Your task to perform on an android device: turn off picture-in-picture Image 0: 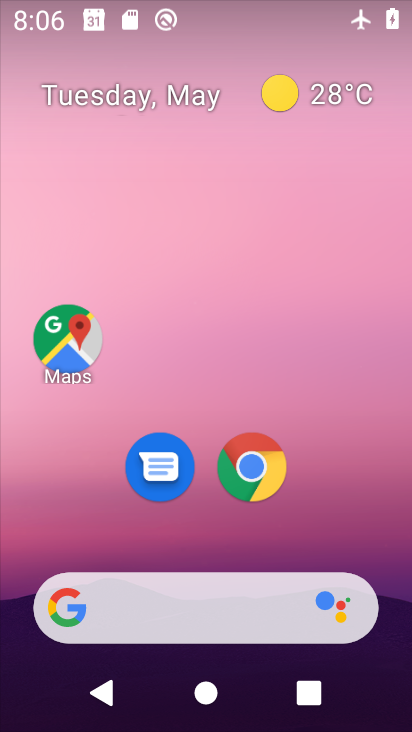
Step 0: click (243, 454)
Your task to perform on an android device: turn off picture-in-picture Image 1: 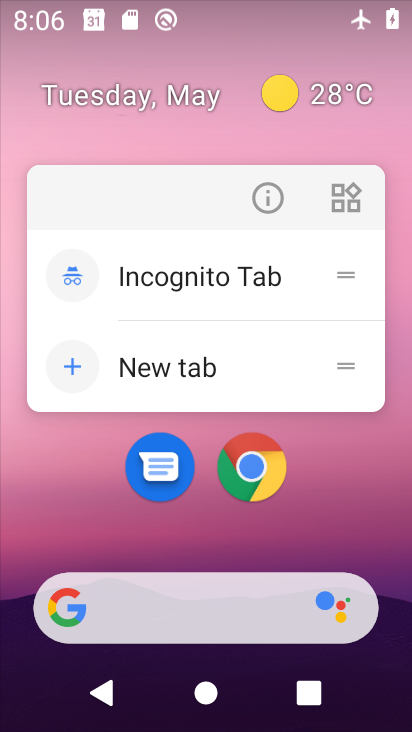
Step 1: click (256, 190)
Your task to perform on an android device: turn off picture-in-picture Image 2: 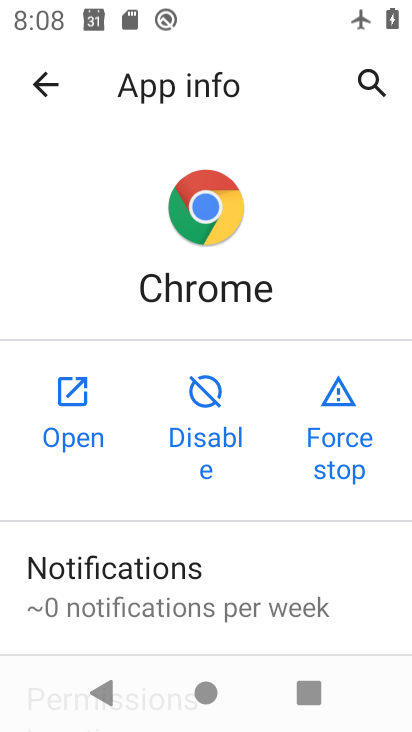
Step 2: drag from (167, 590) to (92, 148)
Your task to perform on an android device: turn off picture-in-picture Image 3: 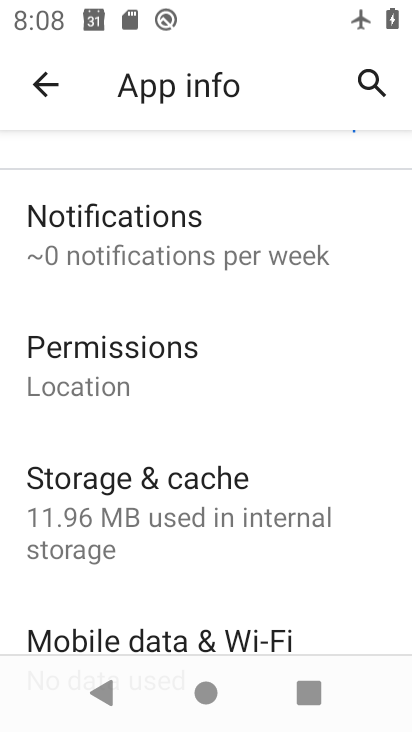
Step 3: click (126, 225)
Your task to perform on an android device: turn off picture-in-picture Image 4: 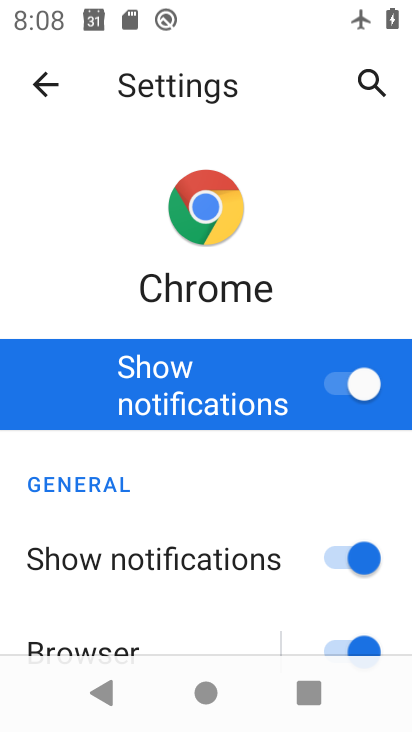
Step 4: drag from (205, 631) to (22, 194)
Your task to perform on an android device: turn off picture-in-picture Image 5: 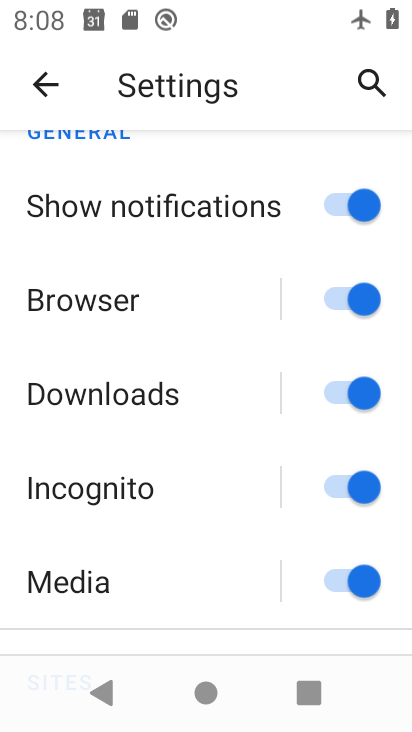
Step 5: drag from (238, 583) to (21, 6)
Your task to perform on an android device: turn off picture-in-picture Image 6: 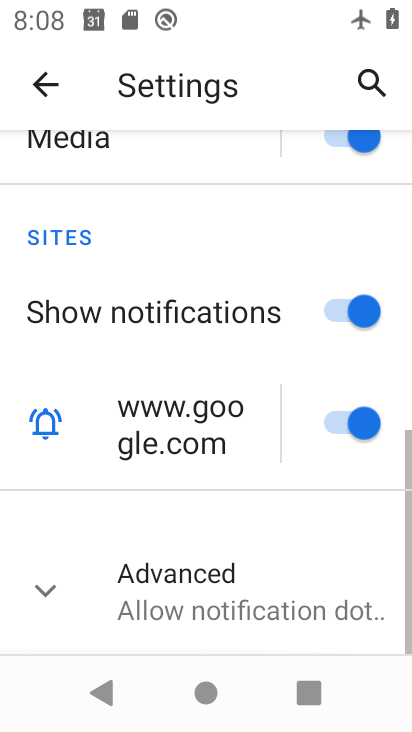
Step 6: click (37, 589)
Your task to perform on an android device: turn off picture-in-picture Image 7: 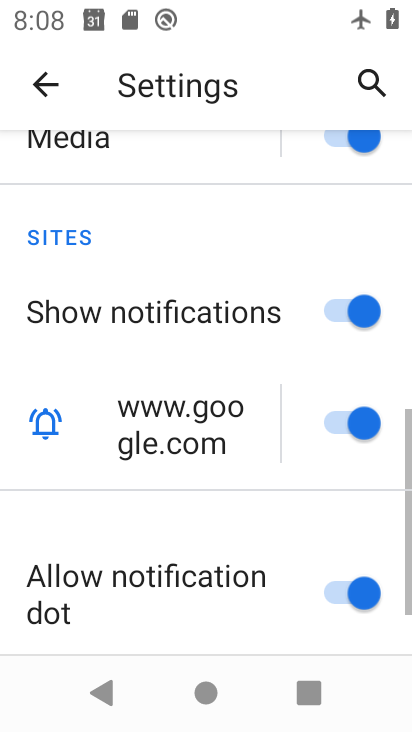
Step 7: drag from (82, 571) to (45, 104)
Your task to perform on an android device: turn off picture-in-picture Image 8: 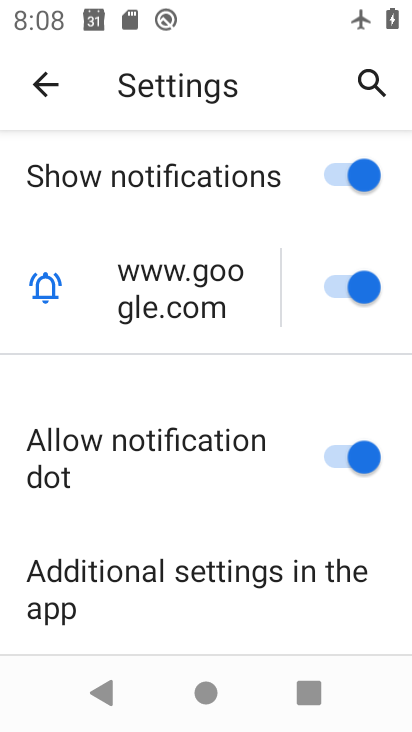
Step 8: drag from (185, 623) to (114, 280)
Your task to perform on an android device: turn off picture-in-picture Image 9: 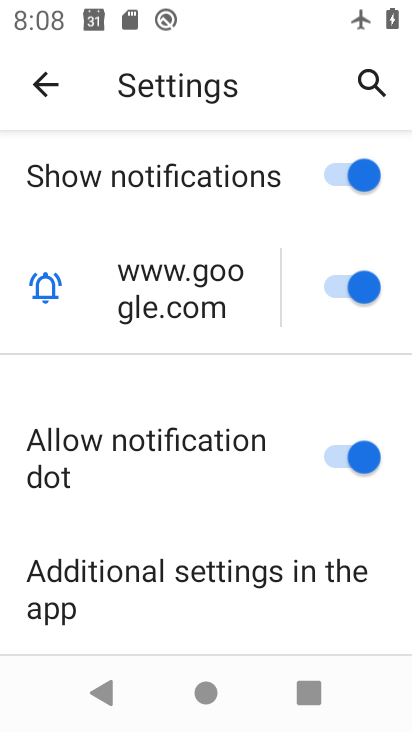
Step 9: drag from (139, 554) to (43, 232)
Your task to perform on an android device: turn off picture-in-picture Image 10: 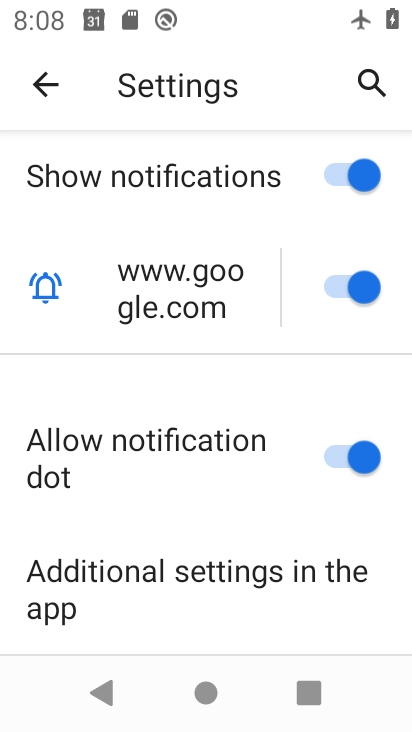
Step 10: click (33, 74)
Your task to perform on an android device: turn off picture-in-picture Image 11: 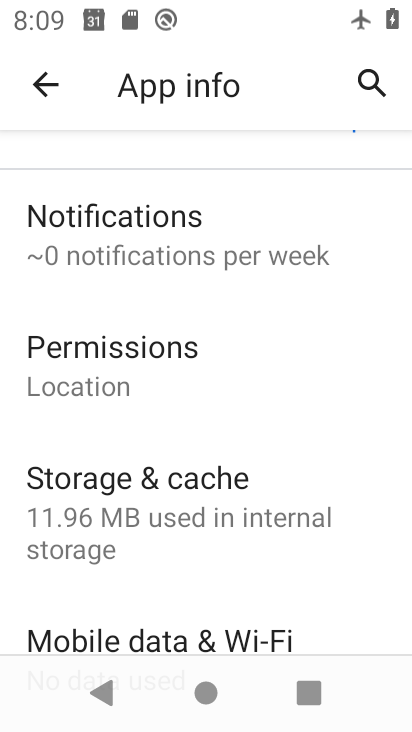
Step 11: drag from (208, 583) to (137, 292)
Your task to perform on an android device: turn off picture-in-picture Image 12: 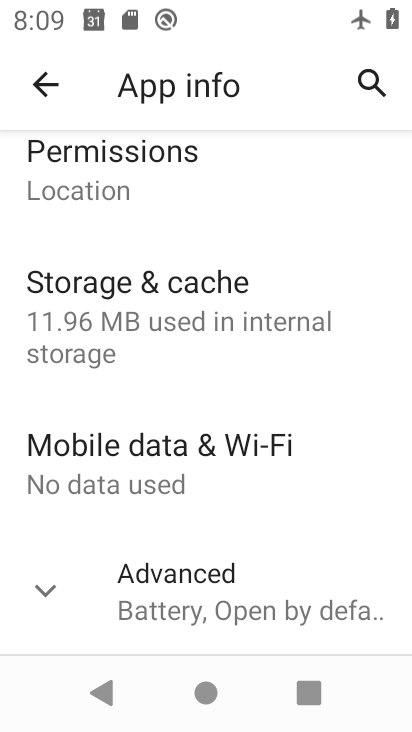
Step 12: click (45, 592)
Your task to perform on an android device: turn off picture-in-picture Image 13: 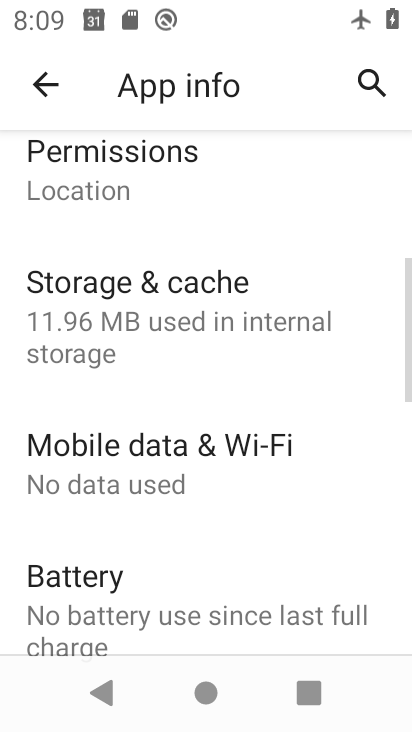
Step 13: drag from (165, 563) to (133, 245)
Your task to perform on an android device: turn off picture-in-picture Image 14: 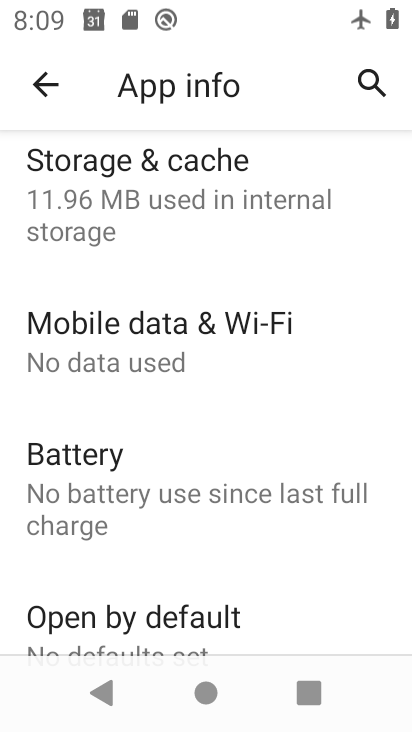
Step 14: drag from (248, 571) to (160, 128)
Your task to perform on an android device: turn off picture-in-picture Image 15: 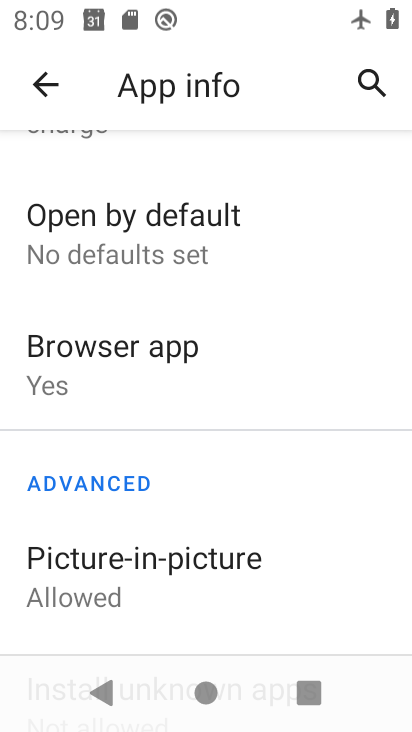
Step 15: click (75, 576)
Your task to perform on an android device: turn off picture-in-picture Image 16: 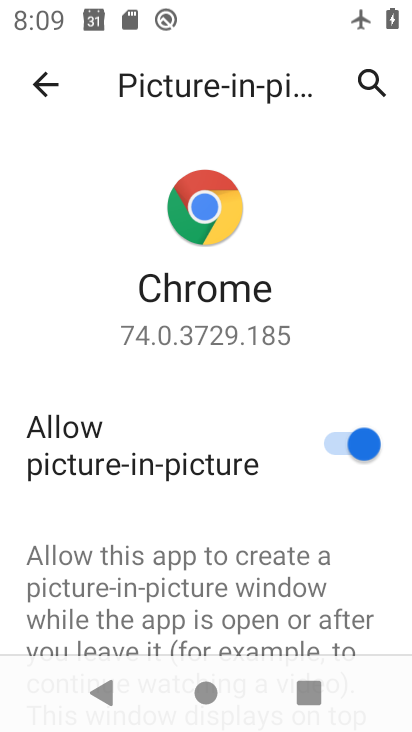
Step 16: click (345, 445)
Your task to perform on an android device: turn off picture-in-picture Image 17: 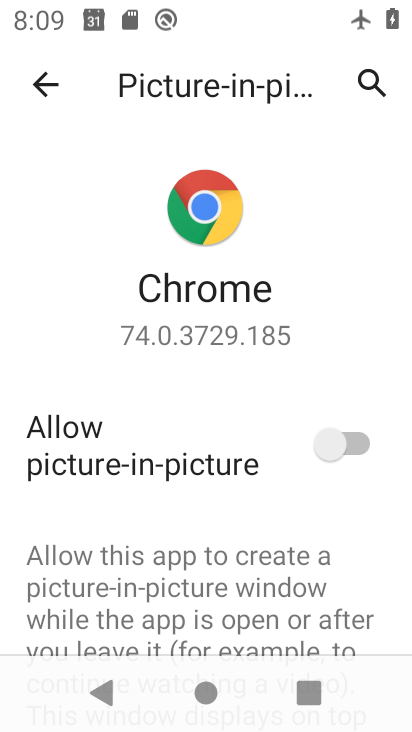
Step 17: task complete